Your task to perform on an android device: check google app version Image 0: 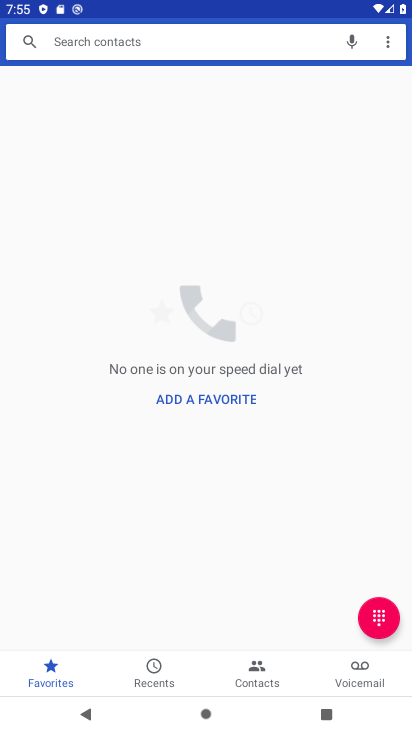
Step 0: press home button
Your task to perform on an android device: check google app version Image 1: 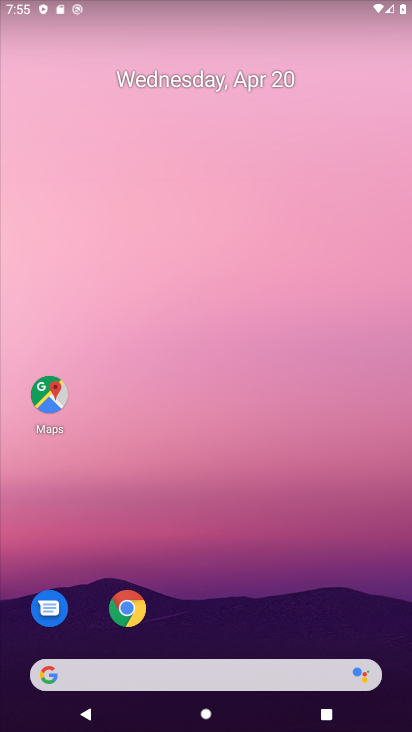
Step 1: drag from (212, 600) to (232, 174)
Your task to perform on an android device: check google app version Image 2: 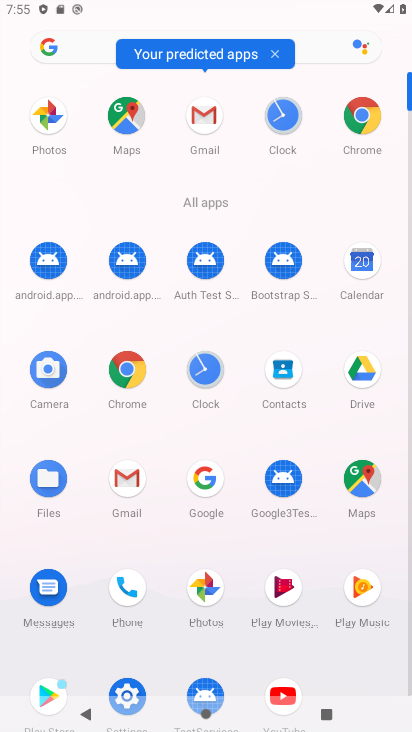
Step 2: click (208, 487)
Your task to perform on an android device: check google app version Image 3: 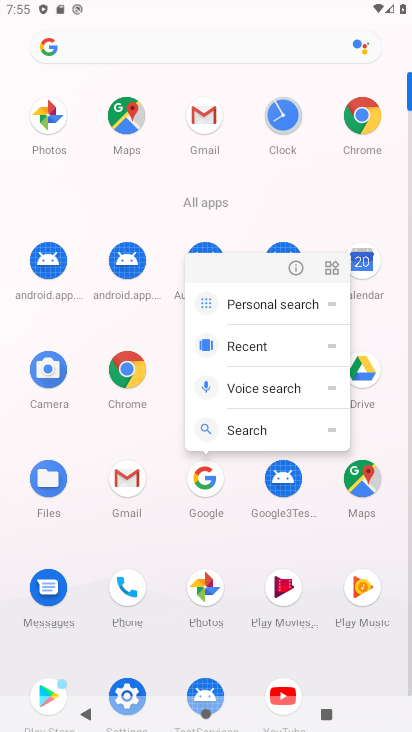
Step 3: click (202, 491)
Your task to perform on an android device: check google app version Image 4: 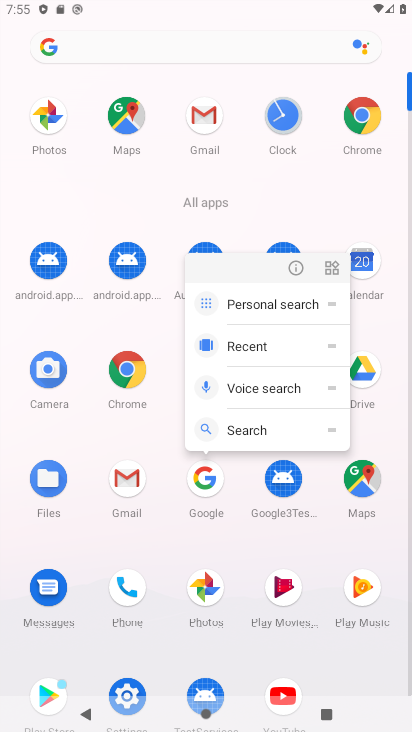
Step 4: click (192, 478)
Your task to perform on an android device: check google app version Image 5: 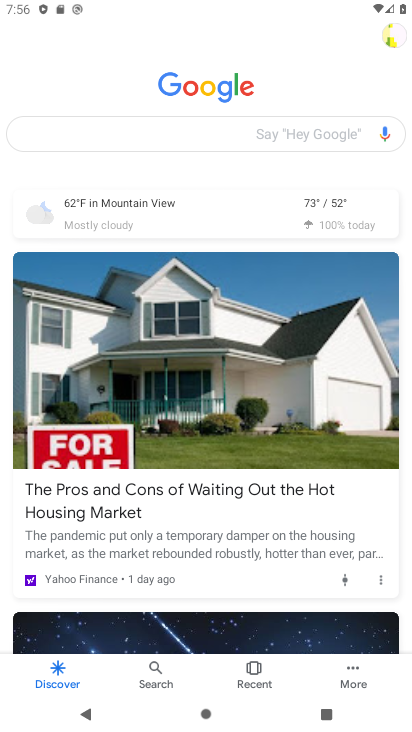
Step 5: click (357, 672)
Your task to perform on an android device: check google app version Image 6: 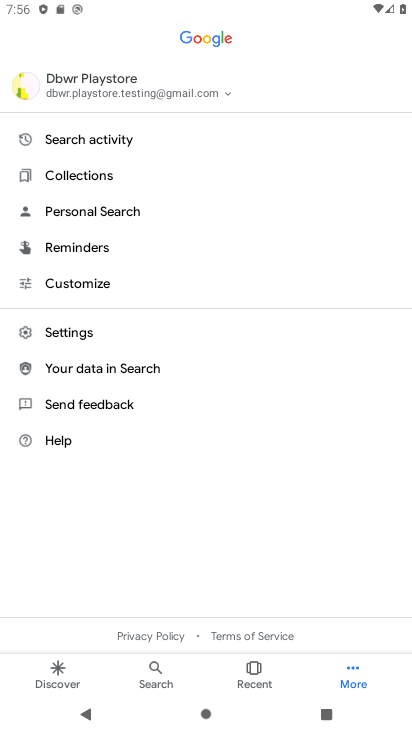
Step 6: click (58, 326)
Your task to perform on an android device: check google app version Image 7: 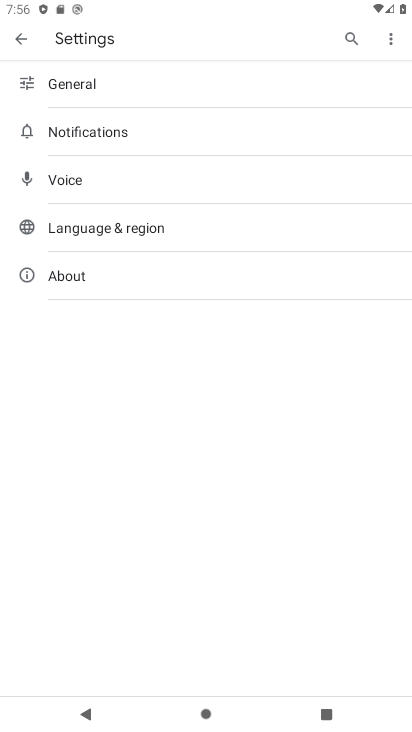
Step 7: click (92, 270)
Your task to perform on an android device: check google app version Image 8: 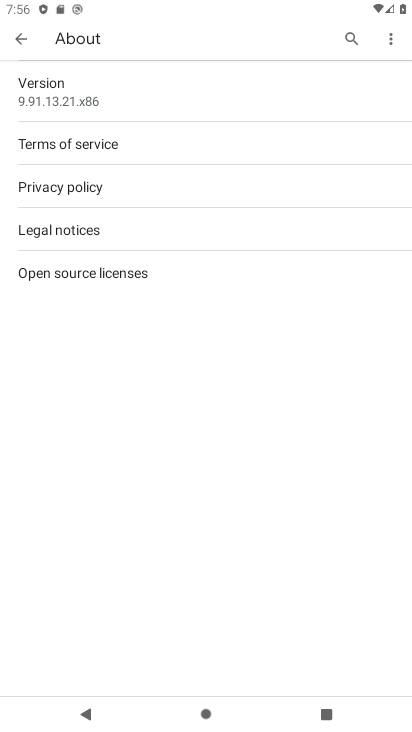
Step 8: task complete